Your task to perform on an android device: check storage Image 0: 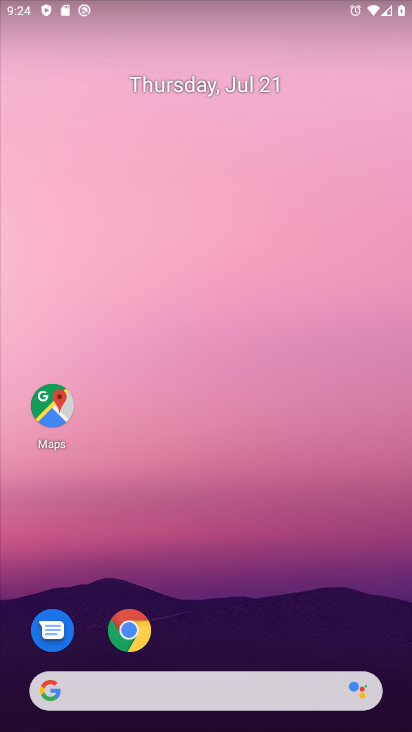
Step 0: drag from (211, 725) to (213, 16)
Your task to perform on an android device: check storage Image 1: 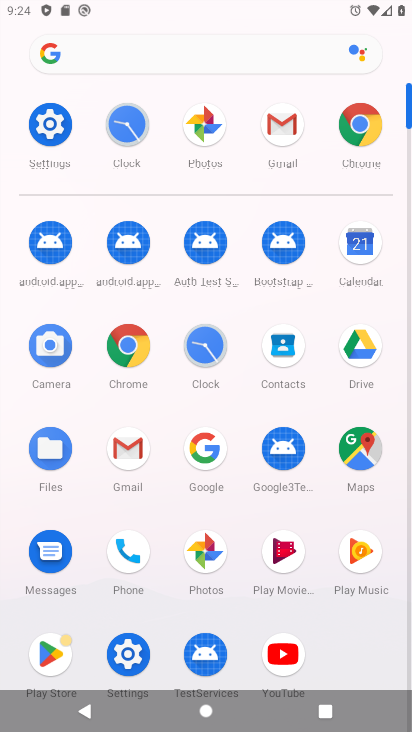
Step 1: click (48, 129)
Your task to perform on an android device: check storage Image 2: 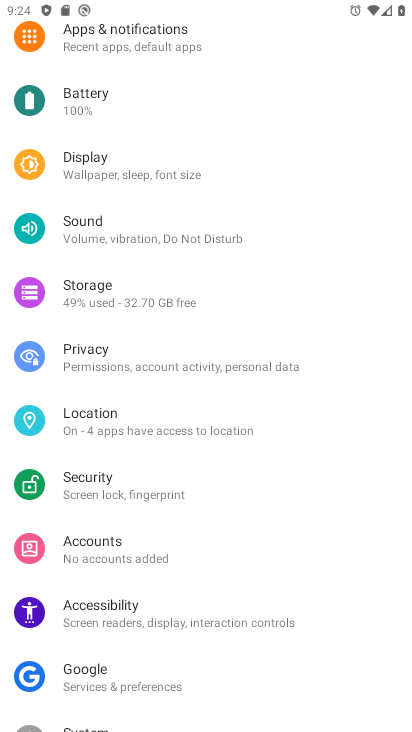
Step 2: click (81, 299)
Your task to perform on an android device: check storage Image 3: 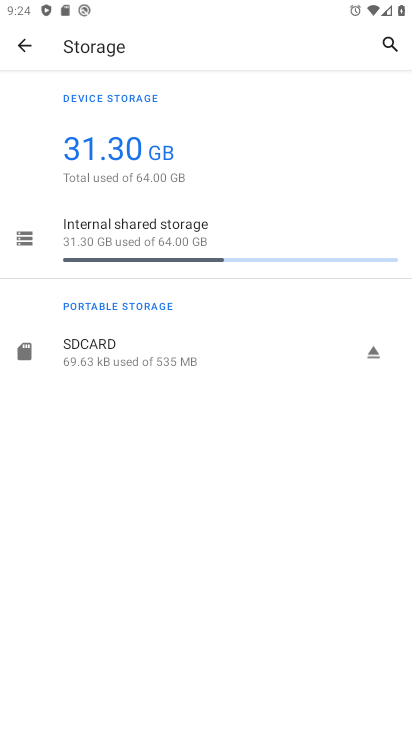
Step 3: task complete